Your task to perform on an android device: check battery use Image 0: 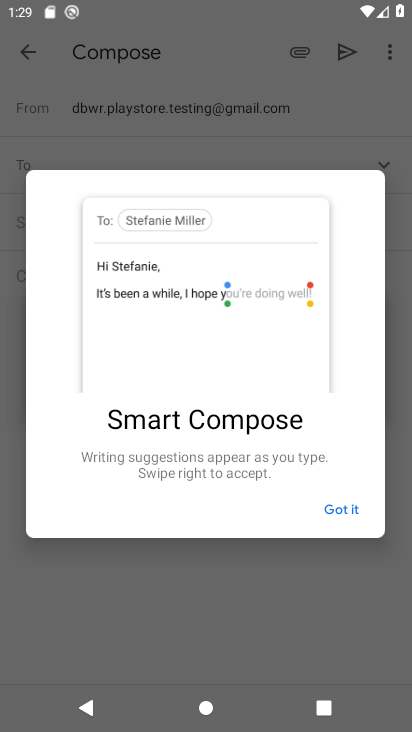
Step 0: press home button
Your task to perform on an android device: check battery use Image 1: 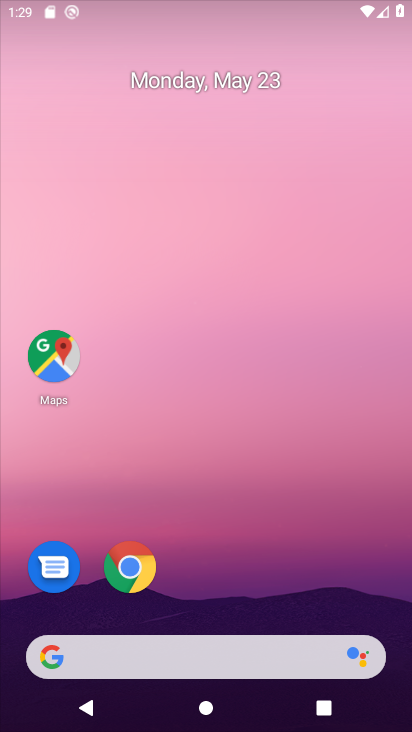
Step 1: drag from (209, 561) to (255, 143)
Your task to perform on an android device: check battery use Image 2: 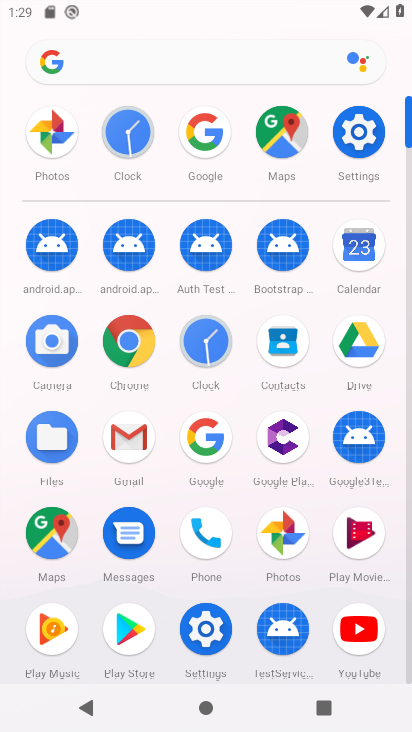
Step 2: click (350, 151)
Your task to perform on an android device: check battery use Image 3: 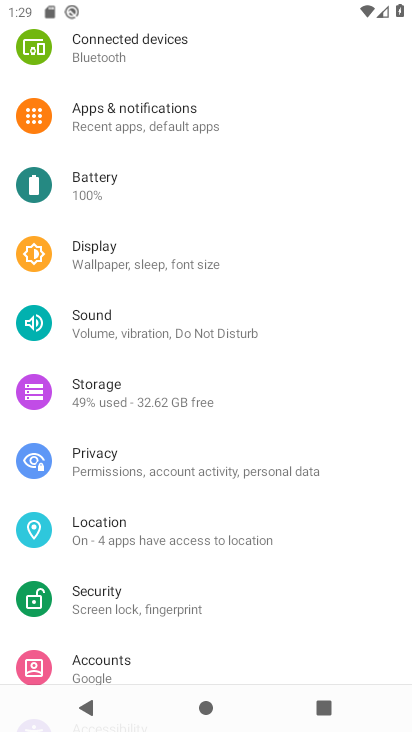
Step 3: click (160, 191)
Your task to perform on an android device: check battery use Image 4: 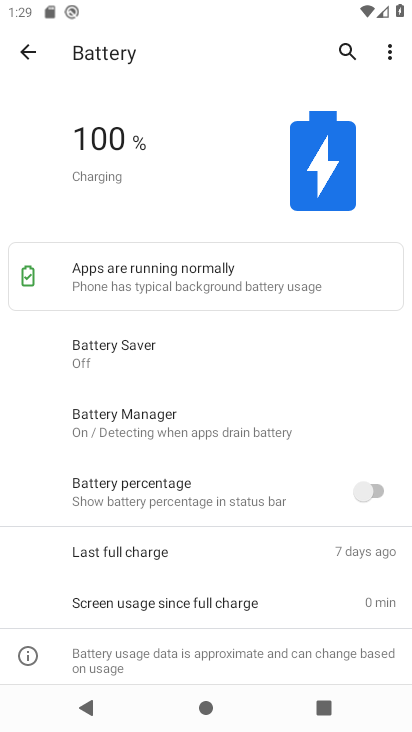
Step 4: click (396, 49)
Your task to perform on an android device: check battery use Image 5: 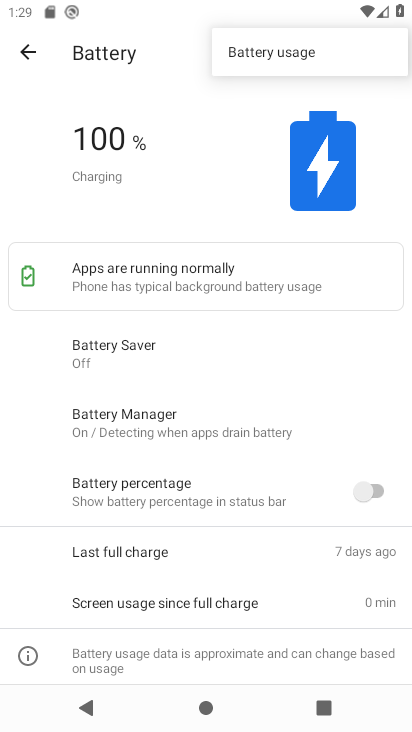
Step 5: click (308, 61)
Your task to perform on an android device: check battery use Image 6: 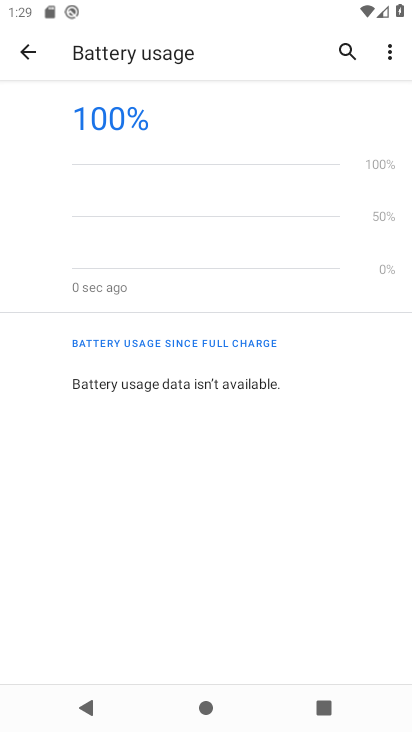
Step 6: task complete